Your task to perform on an android device: Open wifi settings Image 0: 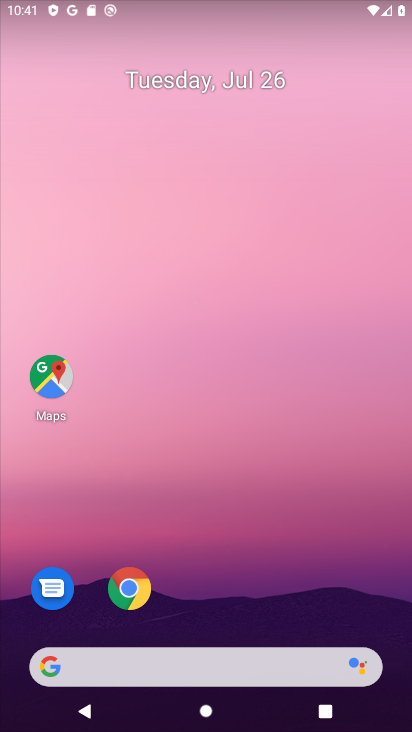
Step 0: press home button
Your task to perform on an android device: Open wifi settings Image 1: 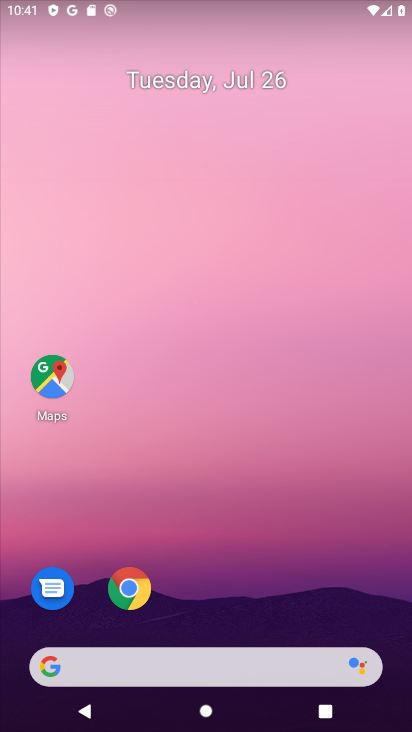
Step 1: drag from (228, 605) to (300, 58)
Your task to perform on an android device: Open wifi settings Image 2: 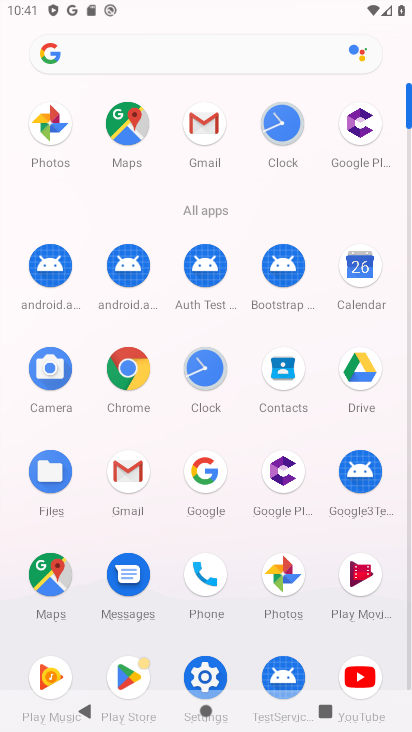
Step 2: click (201, 664)
Your task to perform on an android device: Open wifi settings Image 3: 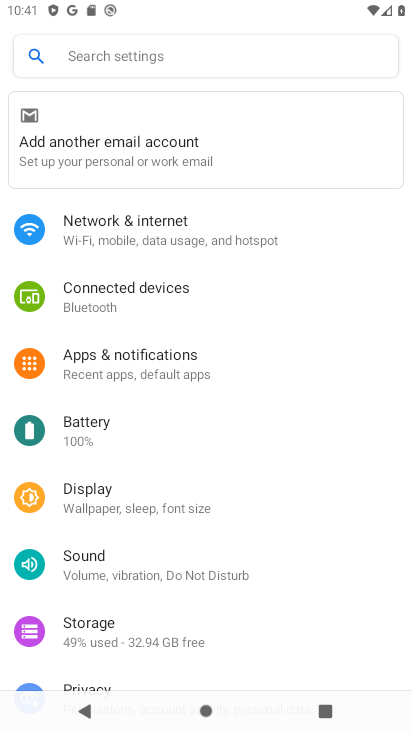
Step 3: click (204, 227)
Your task to perform on an android device: Open wifi settings Image 4: 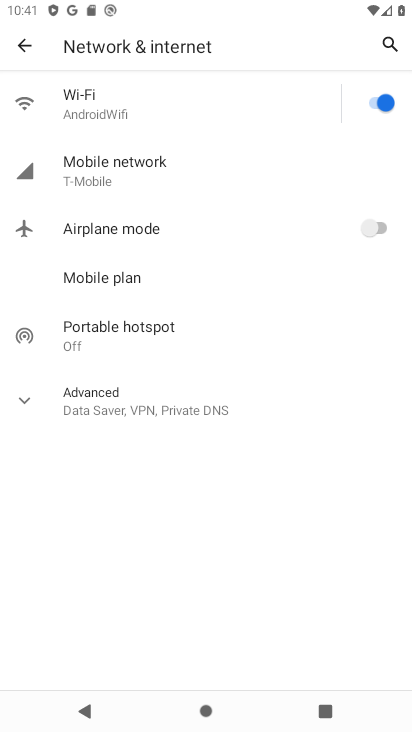
Step 4: click (153, 102)
Your task to perform on an android device: Open wifi settings Image 5: 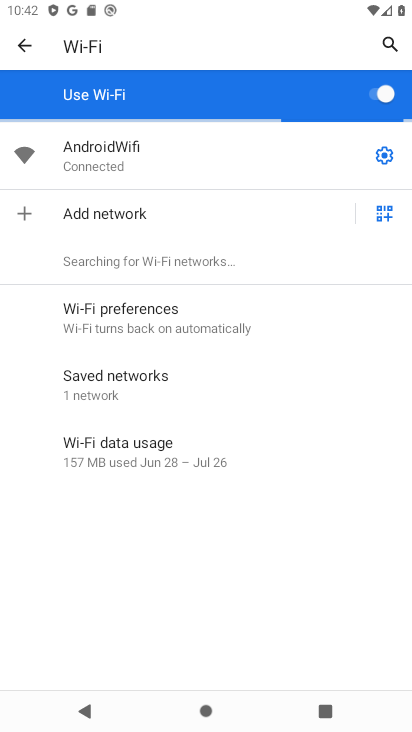
Step 5: task complete